Your task to perform on an android device: Go to location settings Image 0: 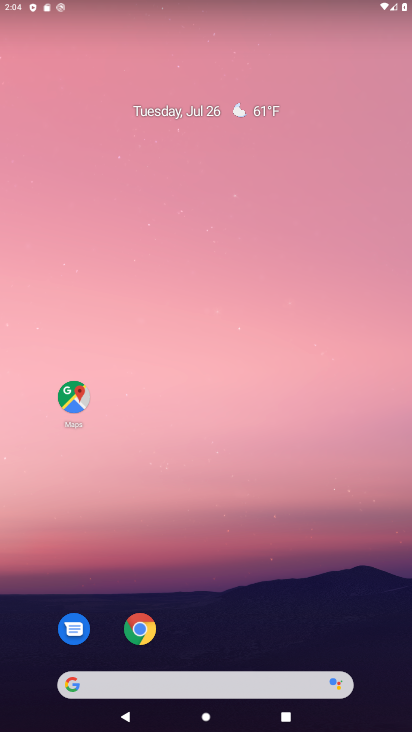
Step 0: drag from (250, 564) to (278, 105)
Your task to perform on an android device: Go to location settings Image 1: 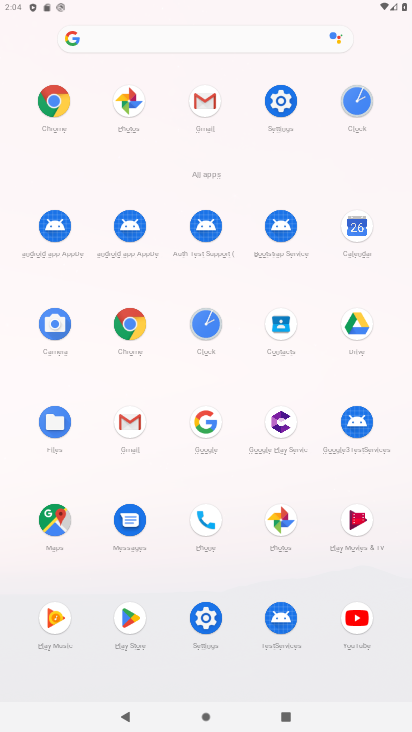
Step 1: click (278, 99)
Your task to perform on an android device: Go to location settings Image 2: 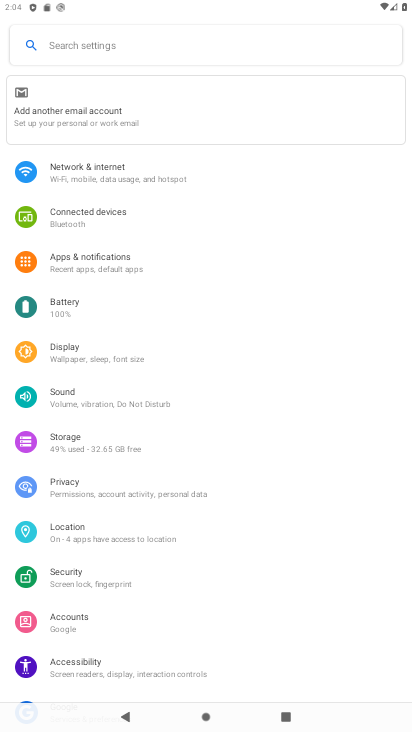
Step 2: click (61, 524)
Your task to perform on an android device: Go to location settings Image 3: 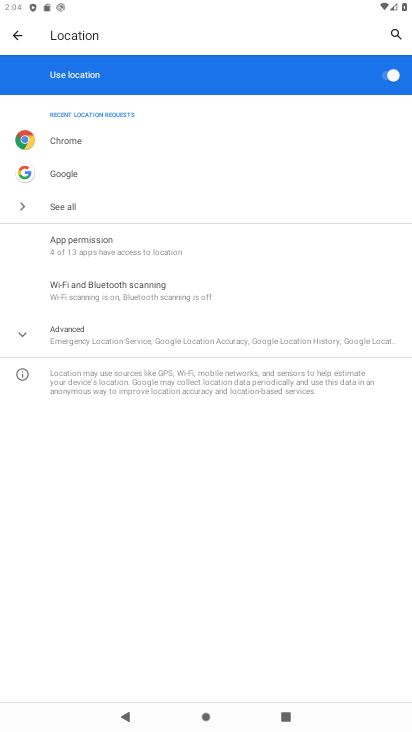
Step 3: task complete